Your task to perform on an android device: open app "Duolingo: language lessons" (install if not already installed) and enter user name: "omens@gmail.com" and password: "casks" Image 0: 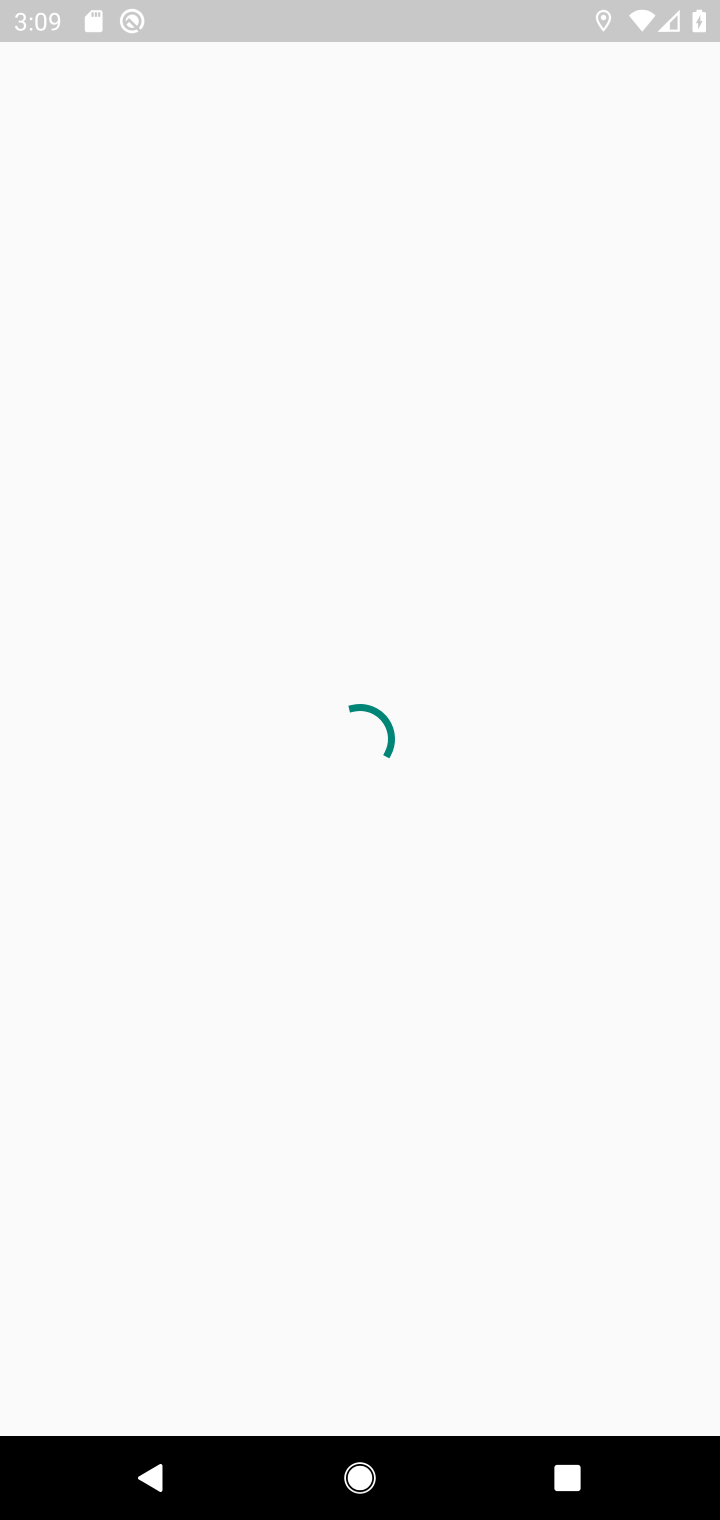
Step 0: press home button
Your task to perform on an android device: open app "Duolingo: language lessons" (install if not already installed) and enter user name: "omens@gmail.com" and password: "casks" Image 1: 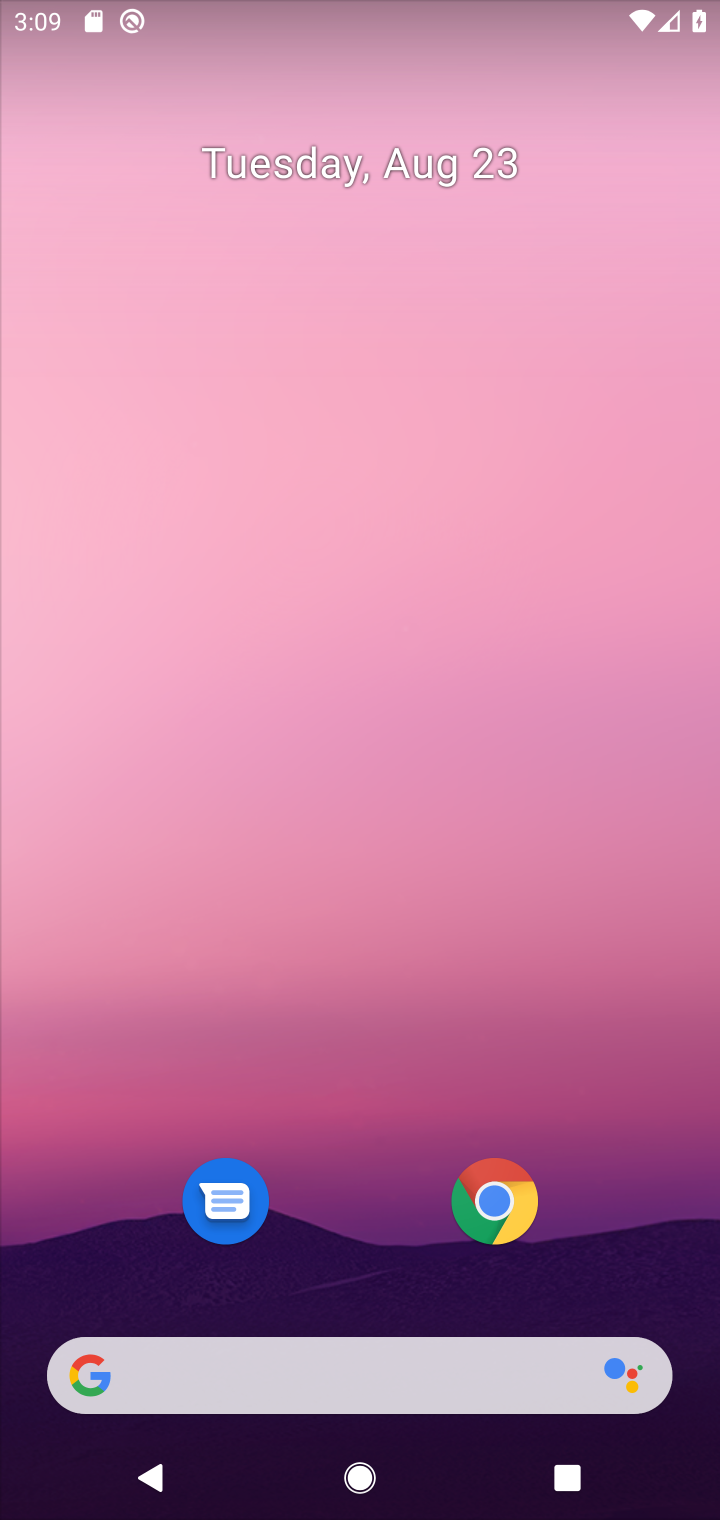
Step 1: drag from (677, 1289) to (499, 90)
Your task to perform on an android device: open app "Duolingo: language lessons" (install if not already installed) and enter user name: "omens@gmail.com" and password: "casks" Image 2: 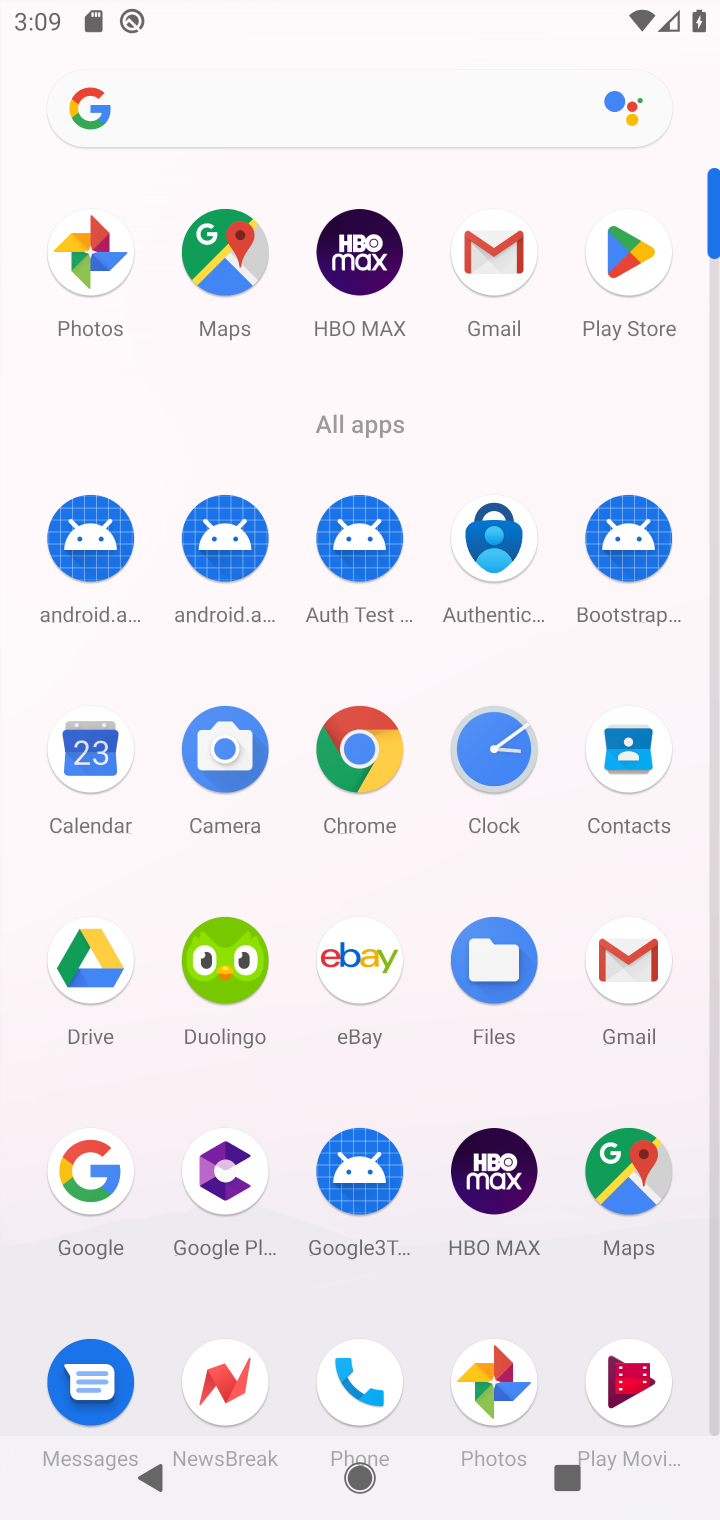
Step 2: click (713, 1398)
Your task to perform on an android device: open app "Duolingo: language lessons" (install if not already installed) and enter user name: "omens@gmail.com" and password: "casks" Image 3: 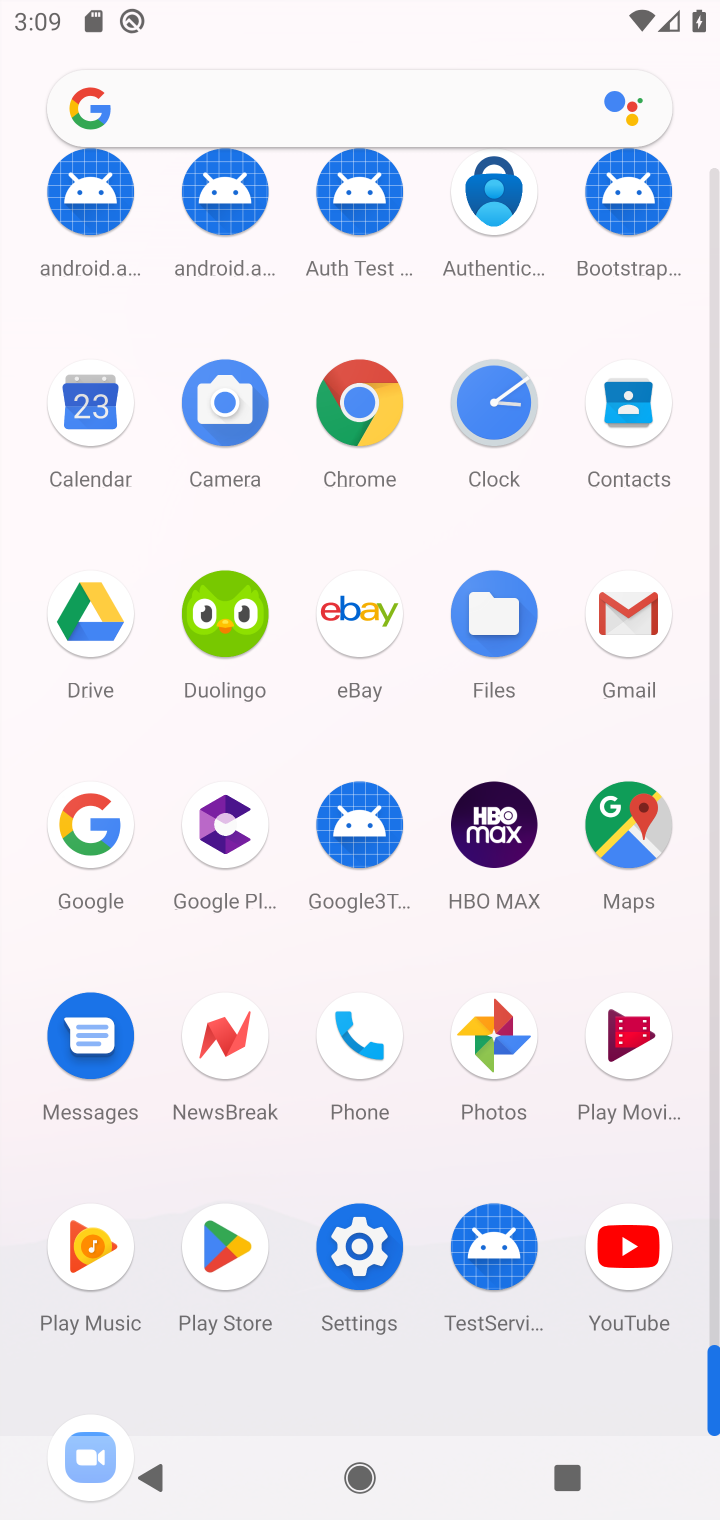
Step 3: click (222, 1247)
Your task to perform on an android device: open app "Duolingo: language lessons" (install if not already installed) and enter user name: "omens@gmail.com" and password: "casks" Image 4: 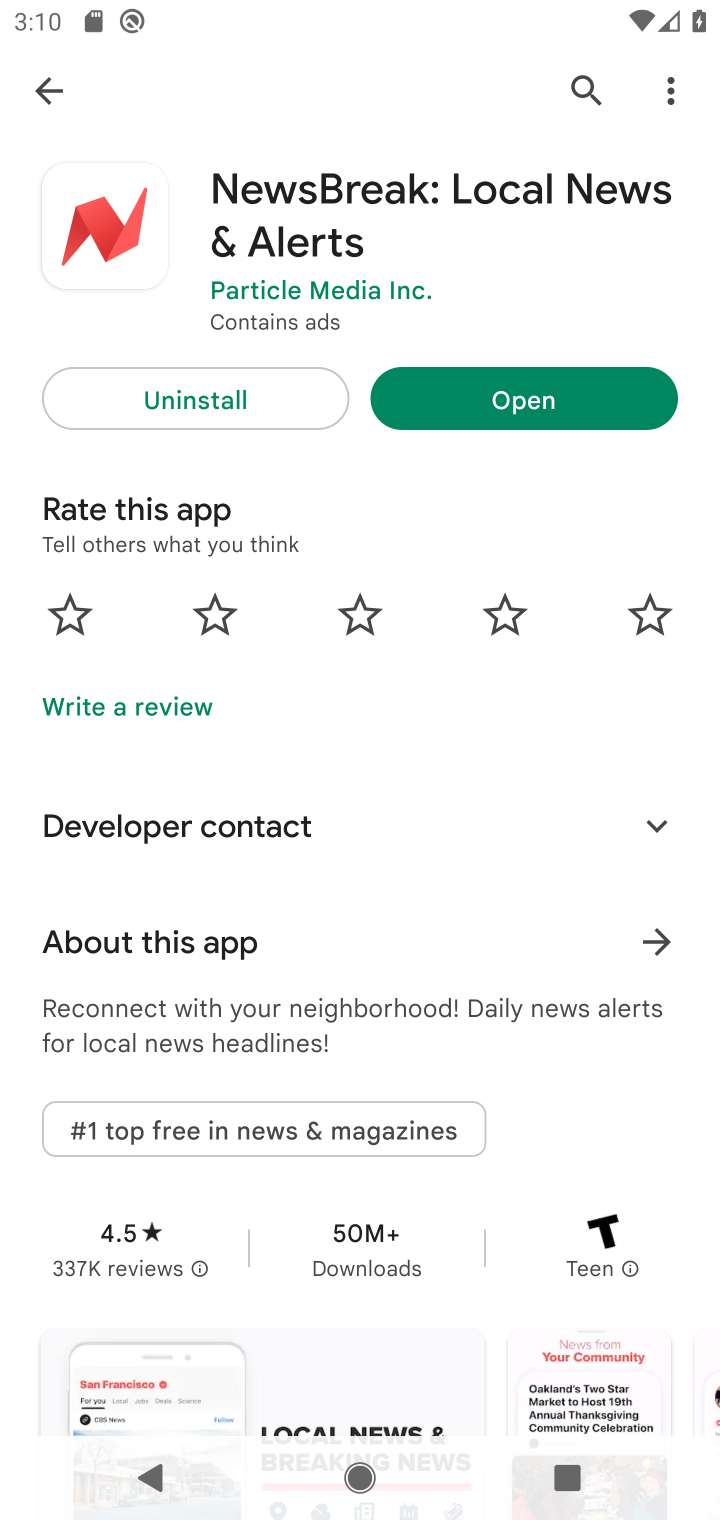
Step 4: click (583, 83)
Your task to perform on an android device: open app "Duolingo: language lessons" (install if not already installed) and enter user name: "omens@gmail.com" and password: "casks" Image 5: 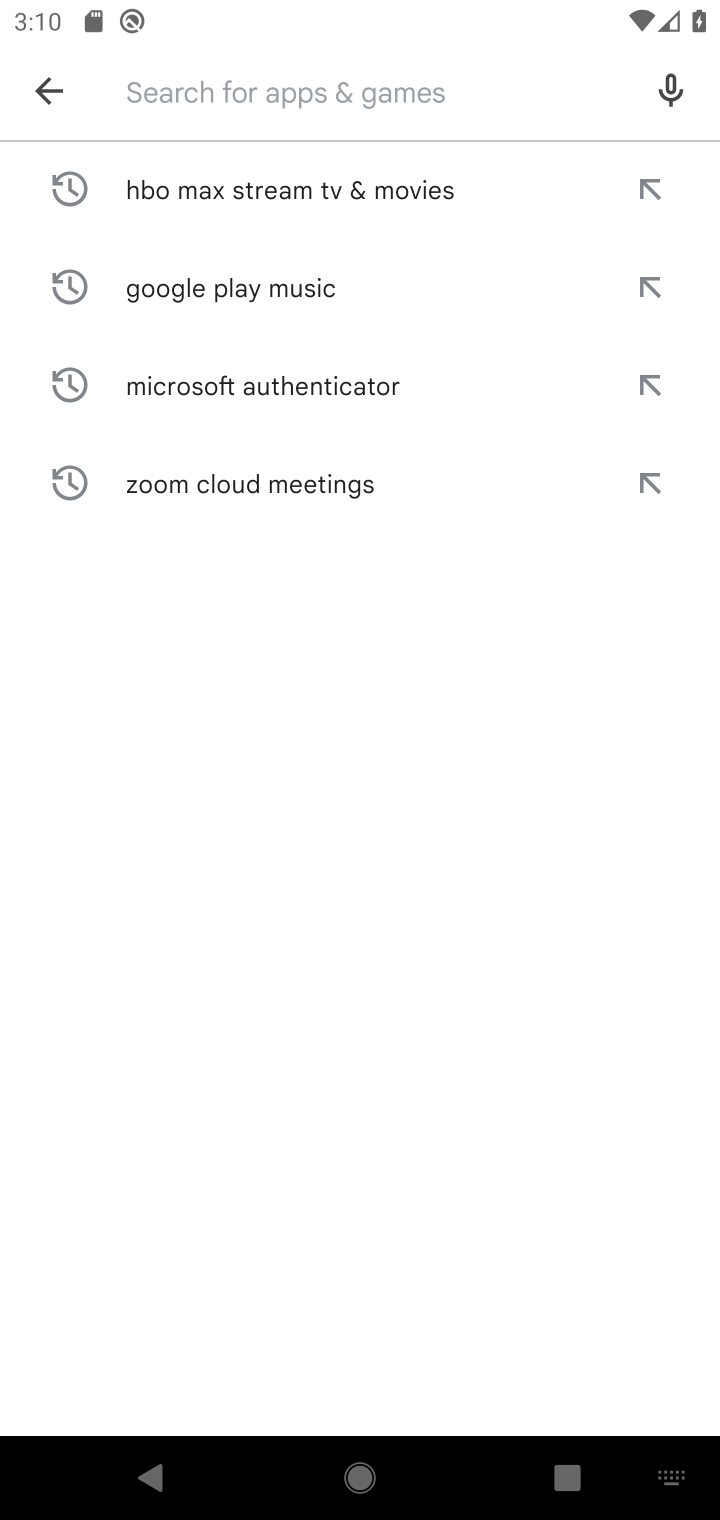
Step 5: type "Duolingo: language lessons"
Your task to perform on an android device: open app "Duolingo: language lessons" (install if not already installed) and enter user name: "omens@gmail.com" and password: "casks" Image 6: 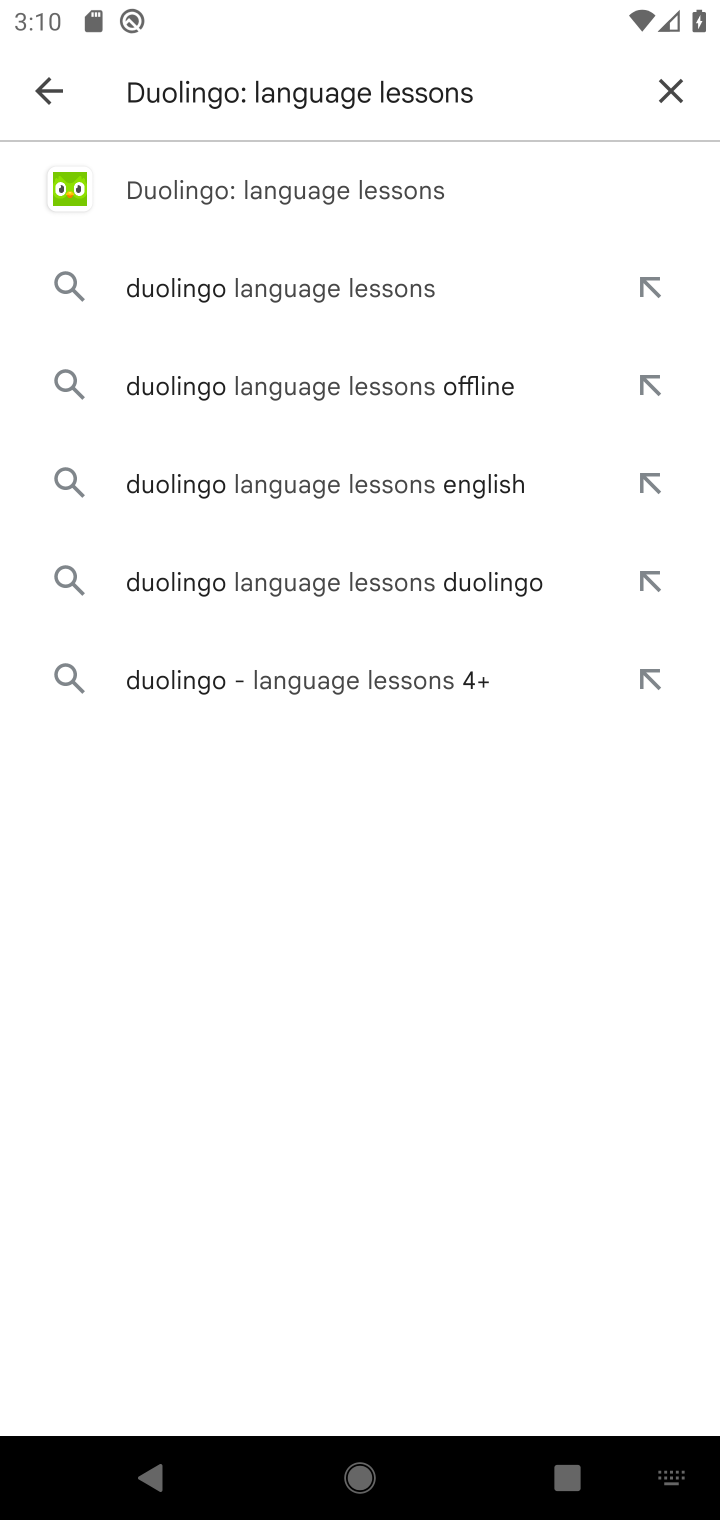
Step 6: click (215, 196)
Your task to perform on an android device: open app "Duolingo: language lessons" (install if not already installed) and enter user name: "omens@gmail.com" and password: "casks" Image 7: 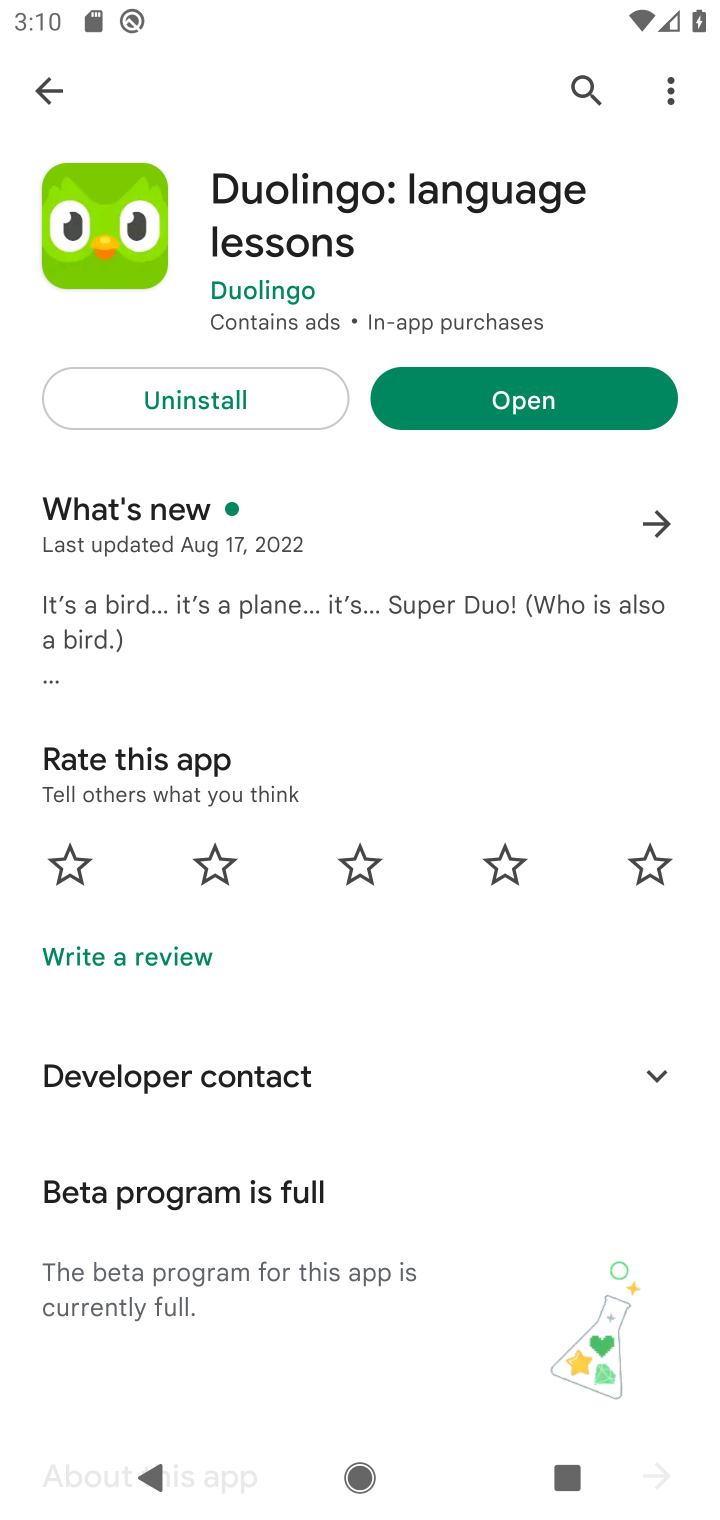
Step 7: click (514, 400)
Your task to perform on an android device: open app "Duolingo: language lessons" (install if not already installed) and enter user name: "omens@gmail.com" and password: "casks" Image 8: 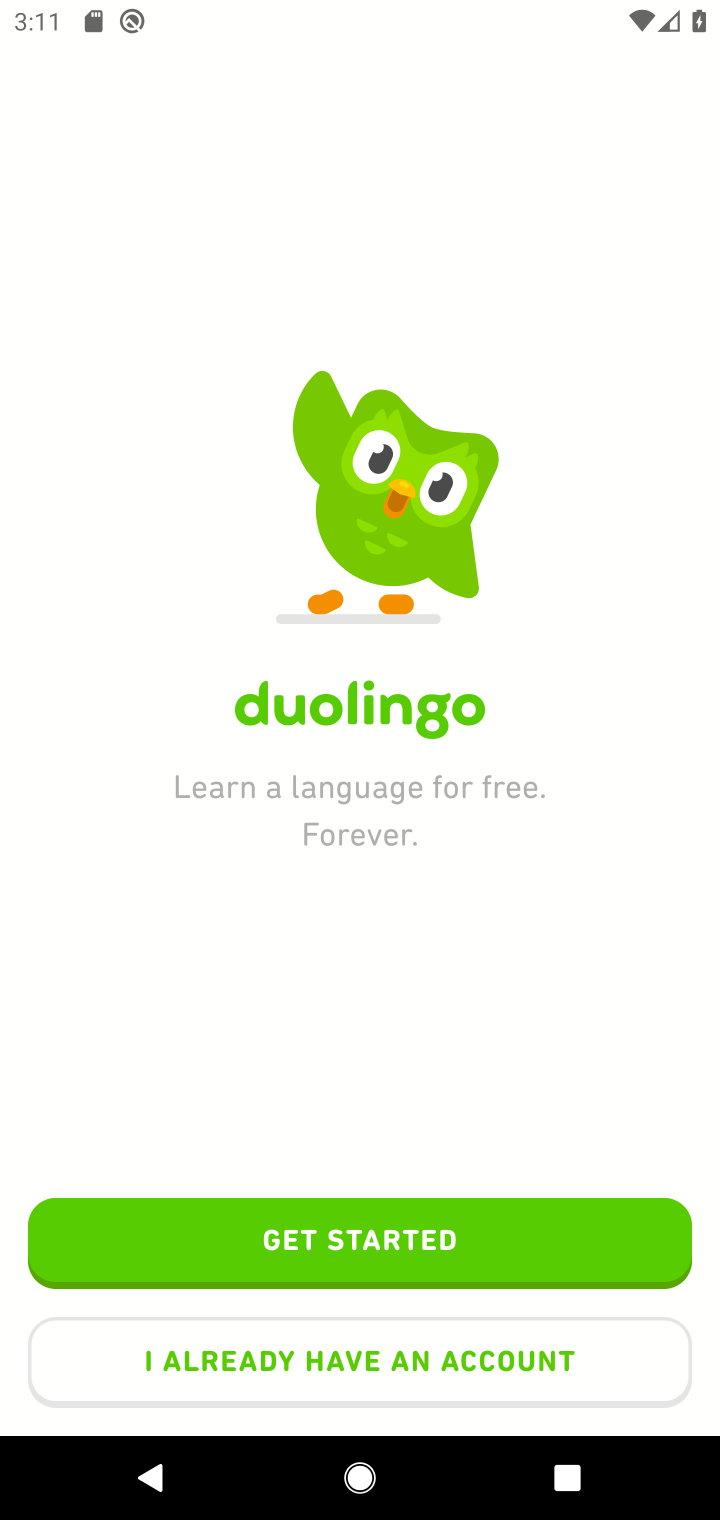
Step 8: click (342, 1361)
Your task to perform on an android device: open app "Duolingo: language lessons" (install if not already installed) and enter user name: "omens@gmail.com" and password: "casks" Image 9: 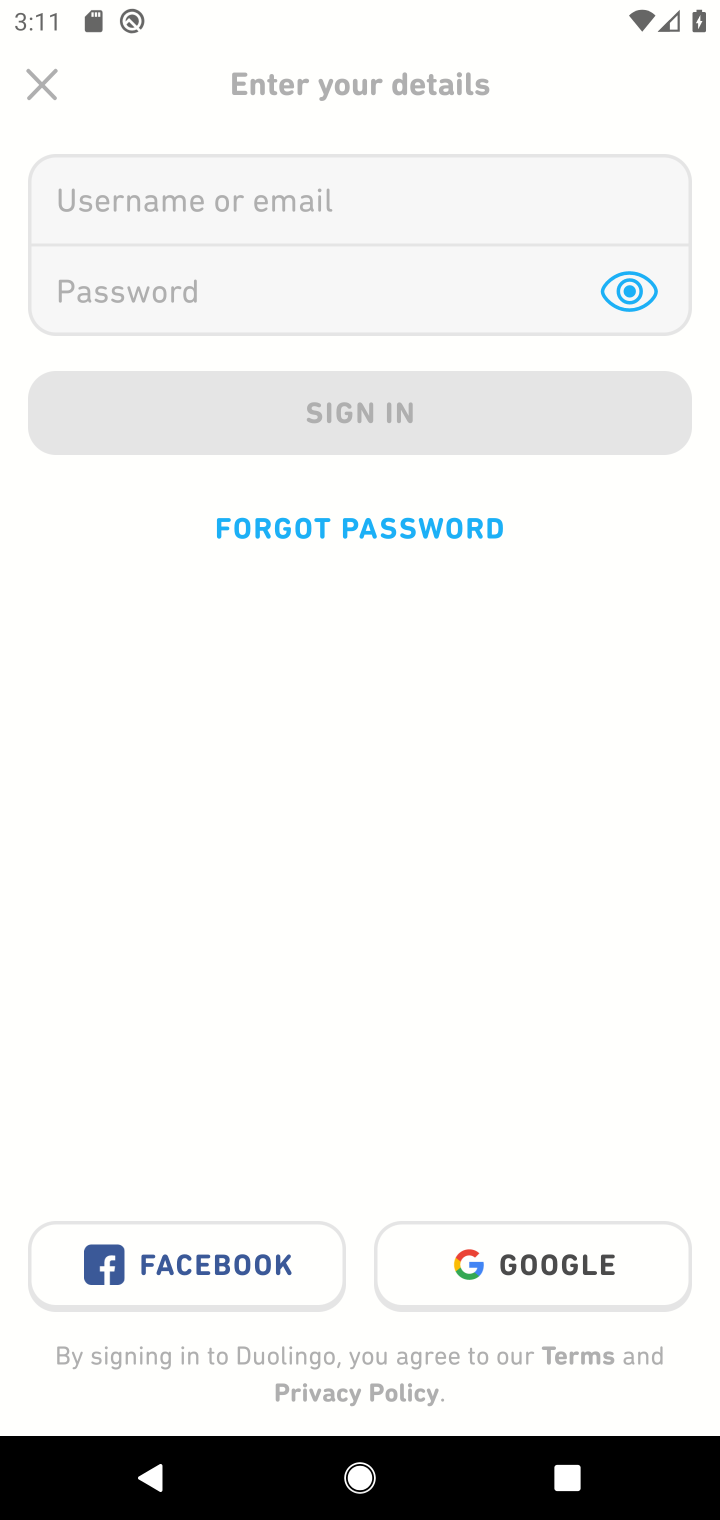
Step 9: click (211, 207)
Your task to perform on an android device: open app "Duolingo: language lessons" (install if not already installed) and enter user name: "omens@gmail.com" and password: "casks" Image 10: 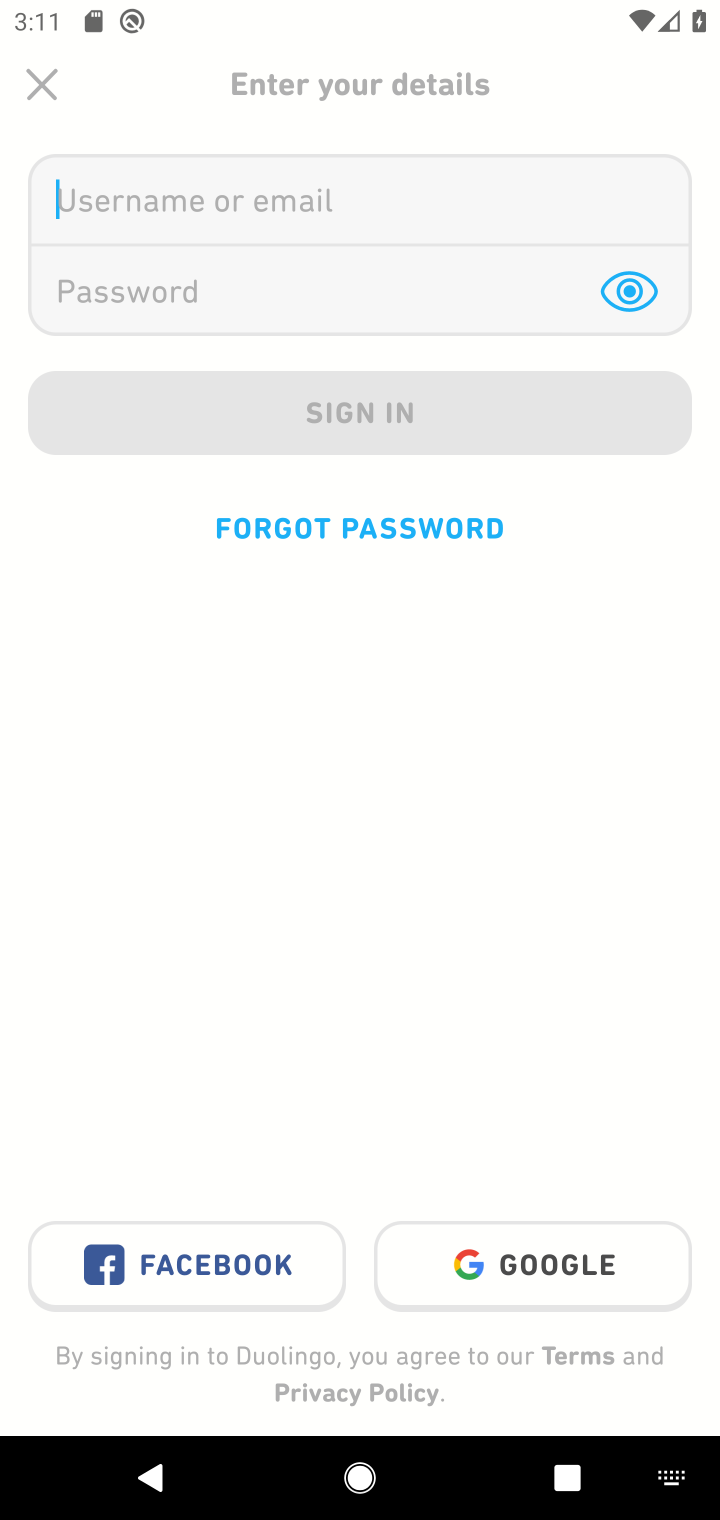
Step 10: type "omens@gmail.com"
Your task to perform on an android device: open app "Duolingo: language lessons" (install if not already installed) and enter user name: "omens@gmail.com" and password: "casks" Image 11: 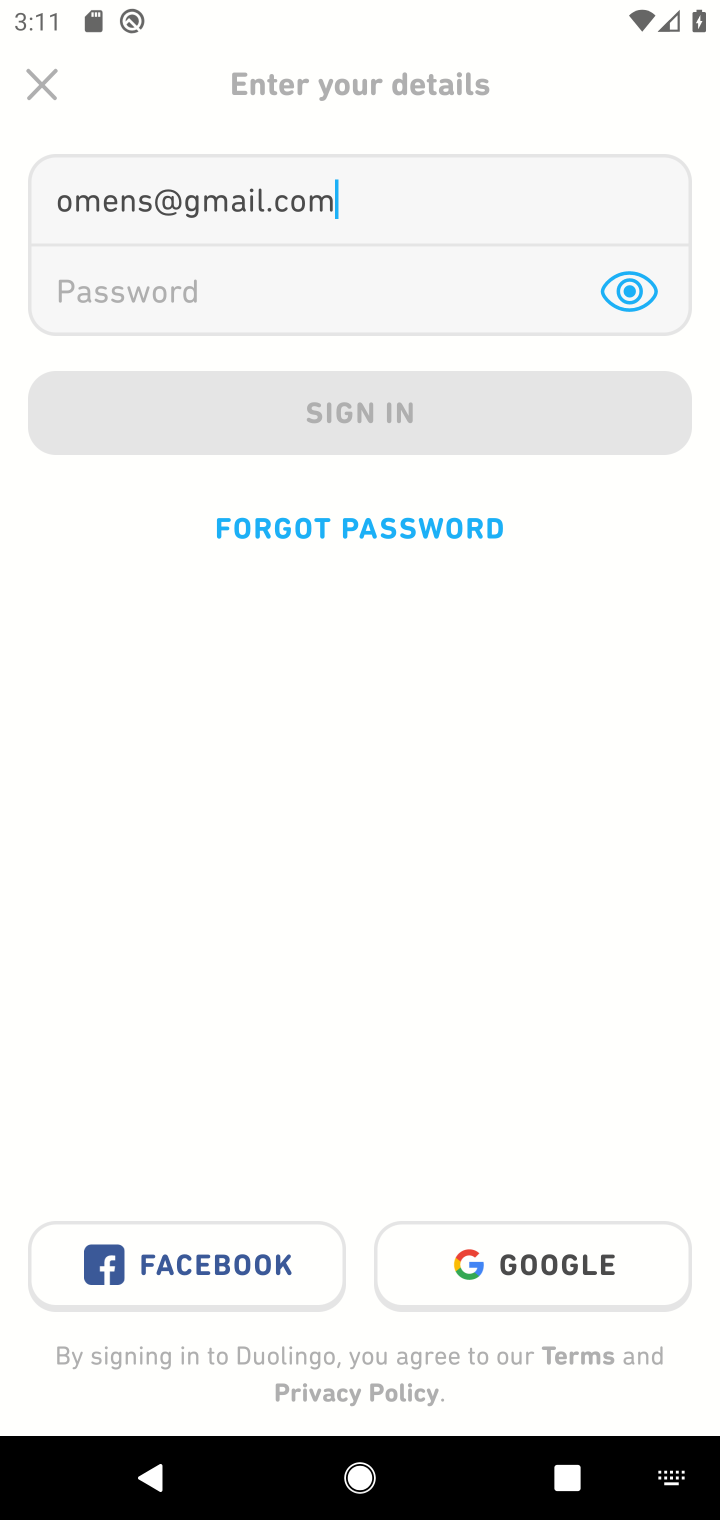
Step 11: click (161, 297)
Your task to perform on an android device: open app "Duolingo: language lessons" (install if not already installed) and enter user name: "omens@gmail.com" and password: "casks" Image 12: 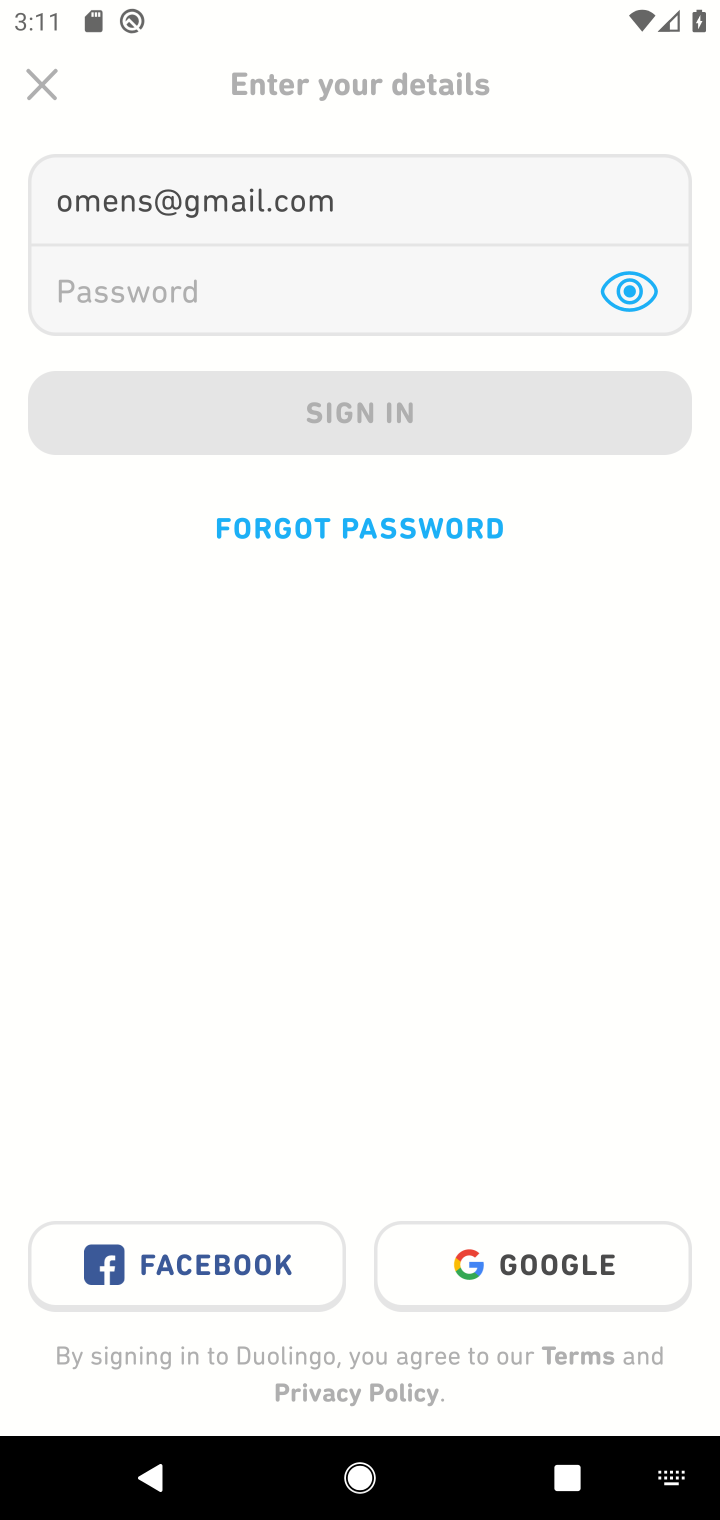
Step 12: type "casks"
Your task to perform on an android device: open app "Duolingo: language lessons" (install if not already installed) and enter user name: "omens@gmail.com" and password: "casks" Image 13: 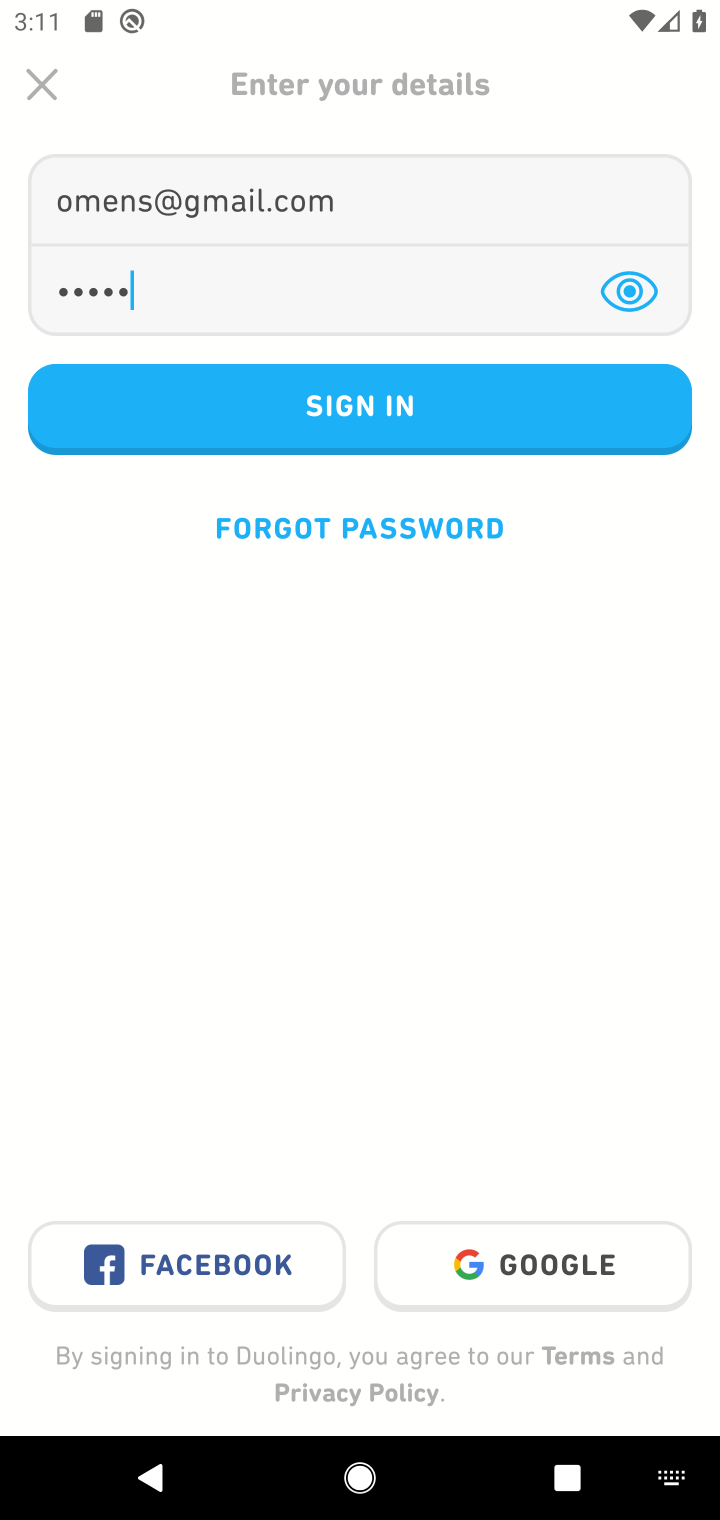
Step 13: task complete